Your task to perform on an android device: Open Maps and search for coffee Image 0: 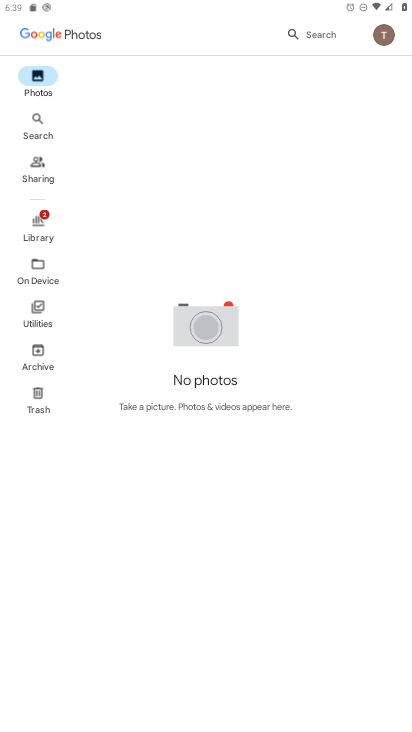
Step 0: press home button
Your task to perform on an android device: Open Maps and search for coffee Image 1: 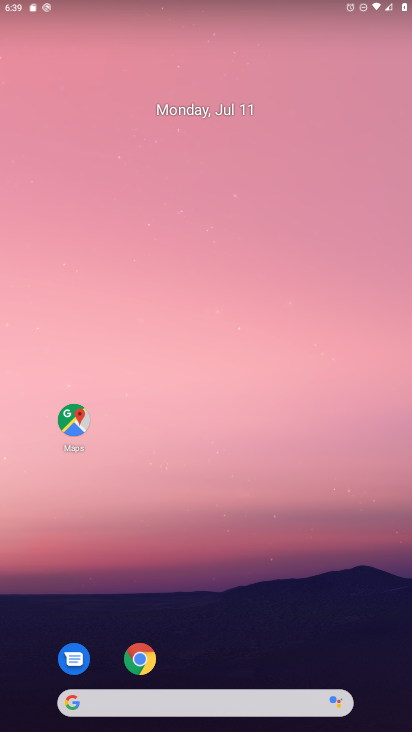
Step 1: click (72, 417)
Your task to perform on an android device: Open Maps and search for coffee Image 2: 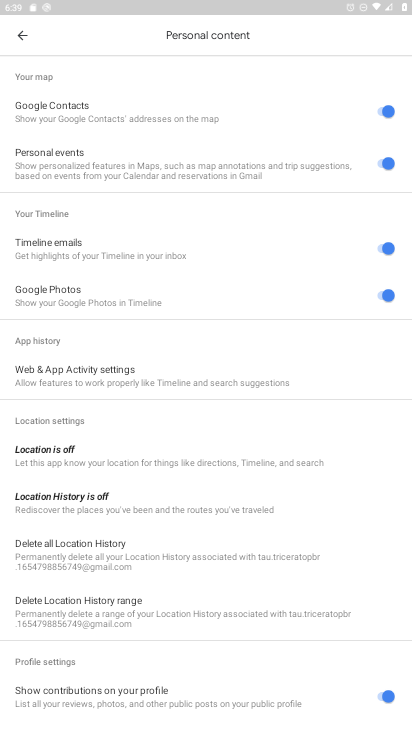
Step 2: press back button
Your task to perform on an android device: Open Maps and search for coffee Image 3: 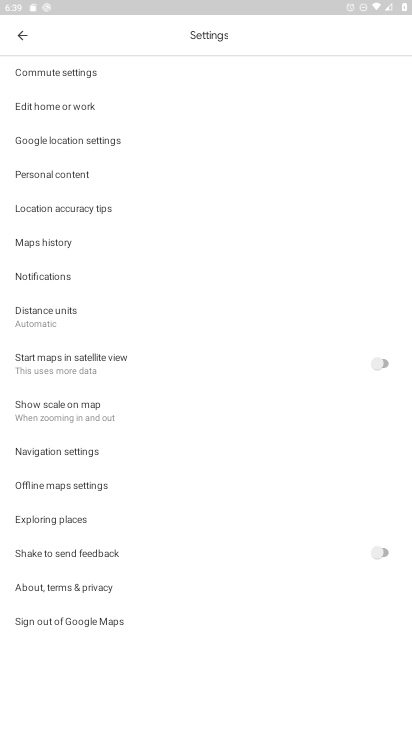
Step 3: press back button
Your task to perform on an android device: Open Maps and search for coffee Image 4: 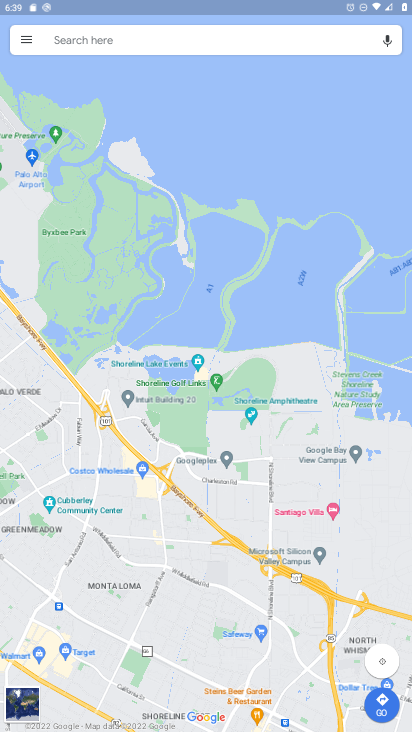
Step 4: click (82, 36)
Your task to perform on an android device: Open Maps and search for coffee Image 5: 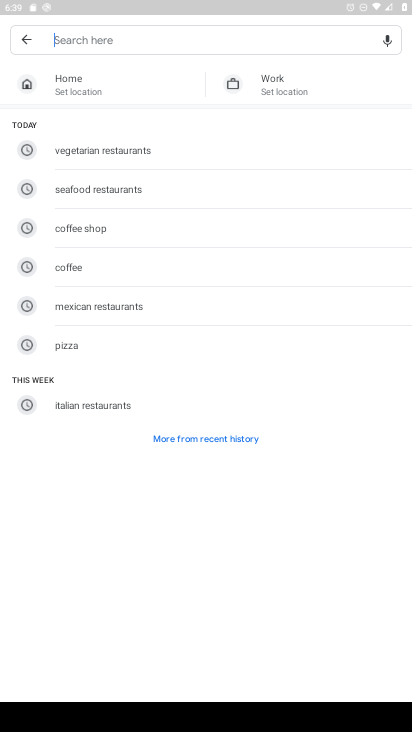
Step 5: type "coffee"
Your task to perform on an android device: Open Maps and search for coffee Image 6: 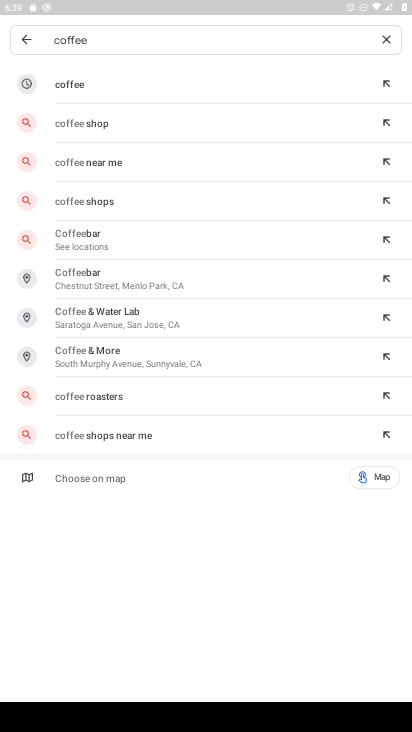
Step 6: click (63, 75)
Your task to perform on an android device: Open Maps and search for coffee Image 7: 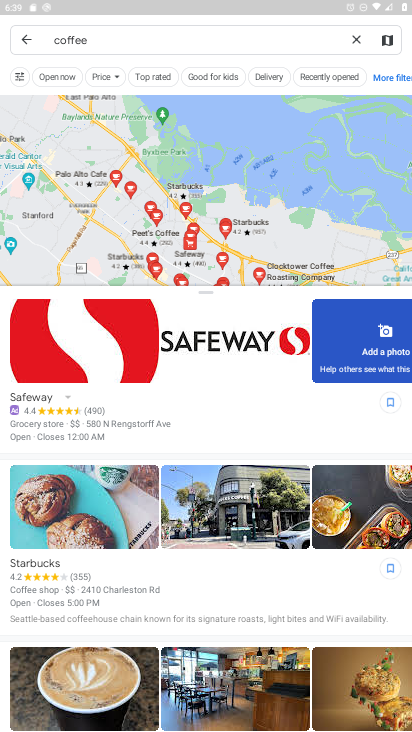
Step 7: task complete